Your task to perform on an android device: turn on javascript in the chrome app Image 0: 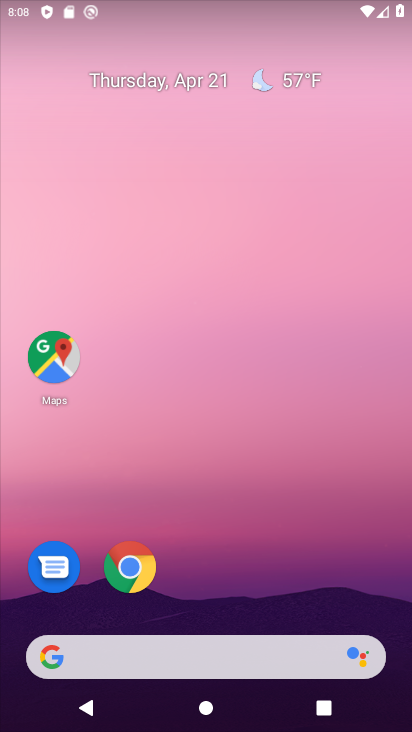
Step 0: drag from (203, 10) to (283, 19)
Your task to perform on an android device: turn on javascript in the chrome app Image 1: 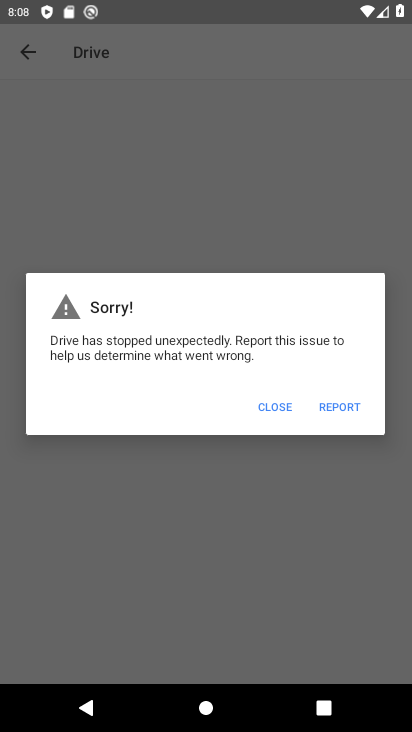
Step 1: press home button
Your task to perform on an android device: turn on javascript in the chrome app Image 2: 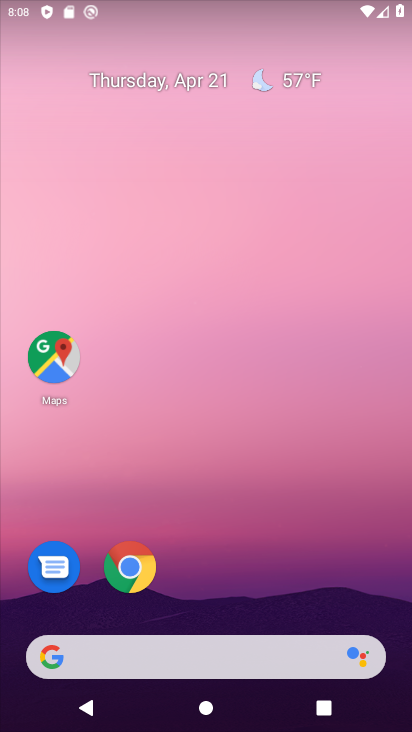
Step 2: click (135, 578)
Your task to perform on an android device: turn on javascript in the chrome app Image 3: 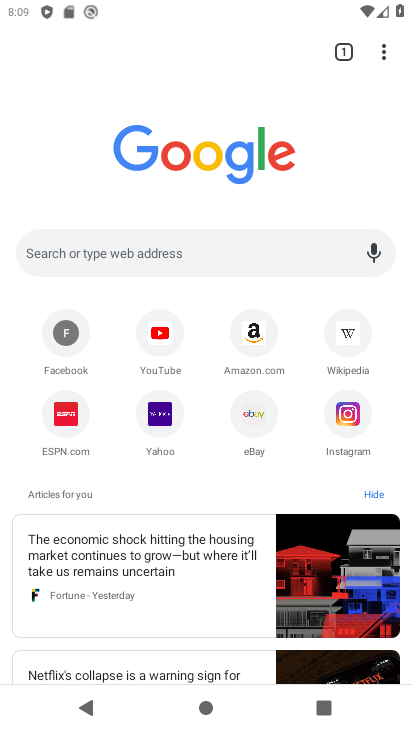
Step 3: drag from (383, 50) to (196, 438)
Your task to perform on an android device: turn on javascript in the chrome app Image 4: 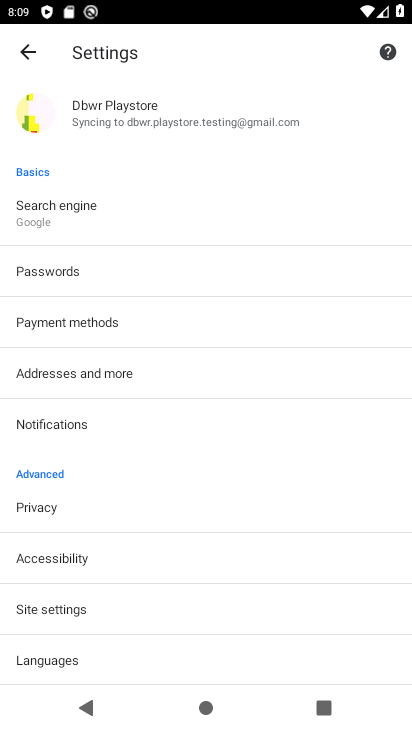
Step 4: click (66, 603)
Your task to perform on an android device: turn on javascript in the chrome app Image 5: 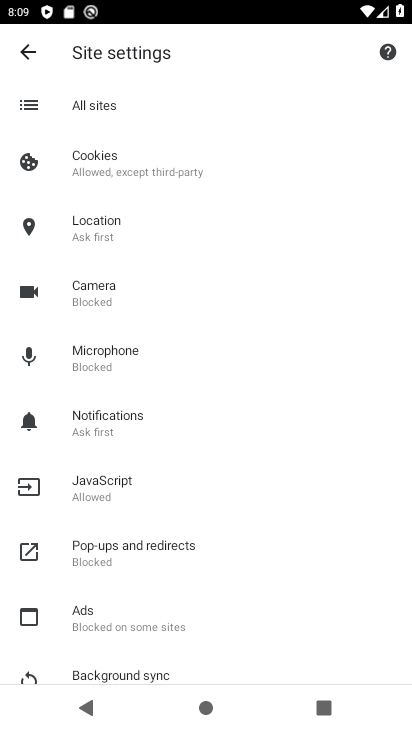
Step 5: click (94, 488)
Your task to perform on an android device: turn on javascript in the chrome app Image 6: 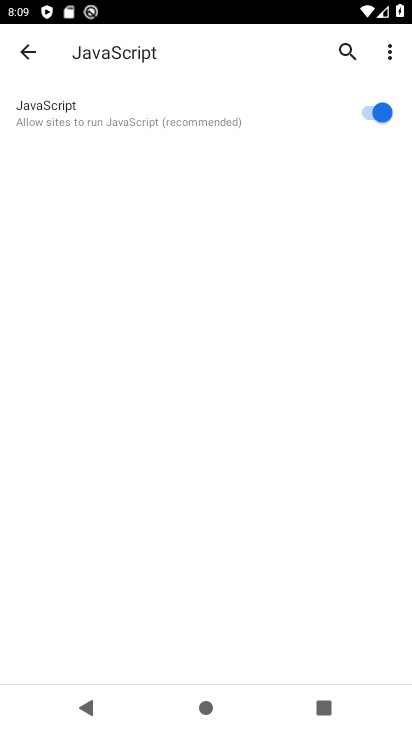
Step 6: task complete